Your task to perform on an android device: Is it going to rain this weekend? Image 0: 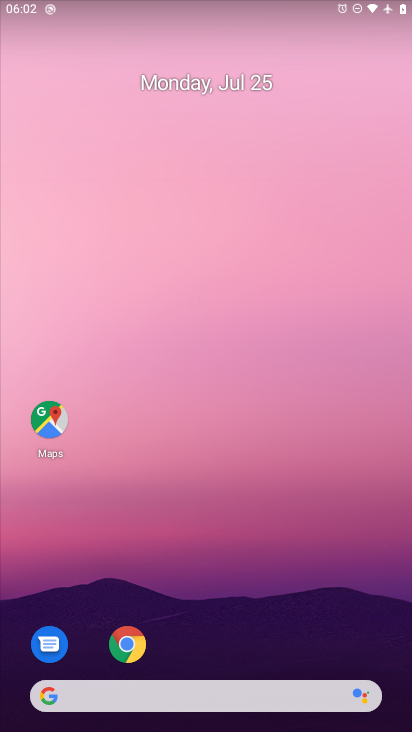
Step 0: drag from (235, 649) to (210, 114)
Your task to perform on an android device: Is it going to rain this weekend? Image 1: 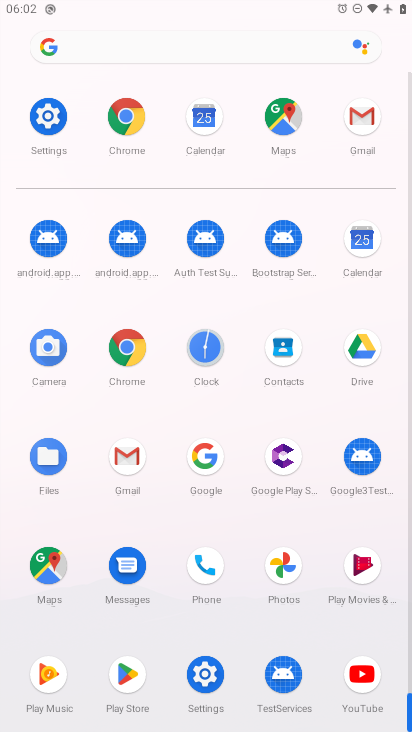
Step 1: click (209, 462)
Your task to perform on an android device: Is it going to rain this weekend? Image 2: 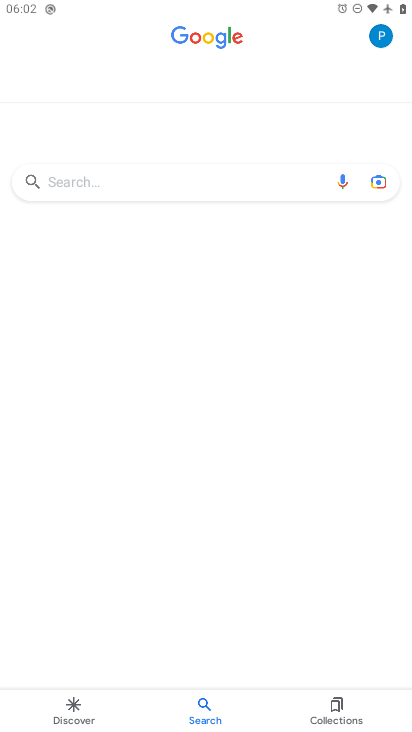
Step 2: type " rain this weekend?"
Your task to perform on an android device: Is it going to rain this weekend? Image 3: 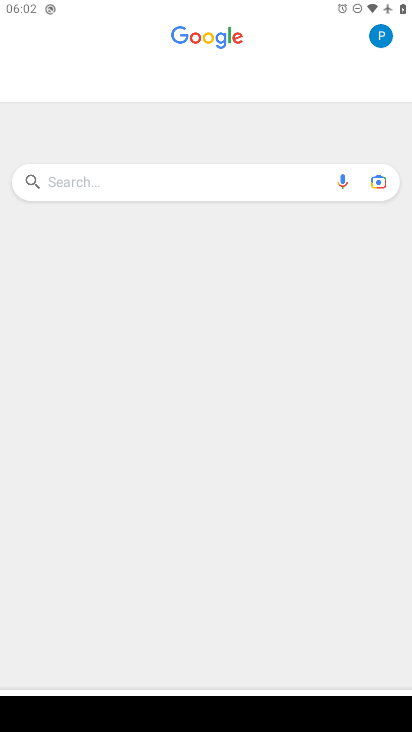
Step 3: press enter
Your task to perform on an android device: Is it going to rain this weekend? Image 4: 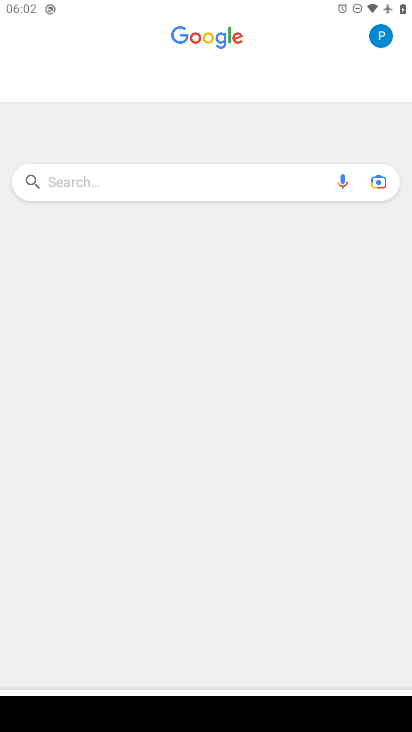
Step 4: click (193, 191)
Your task to perform on an android device: Is it going to rain this weekend? Image 5: 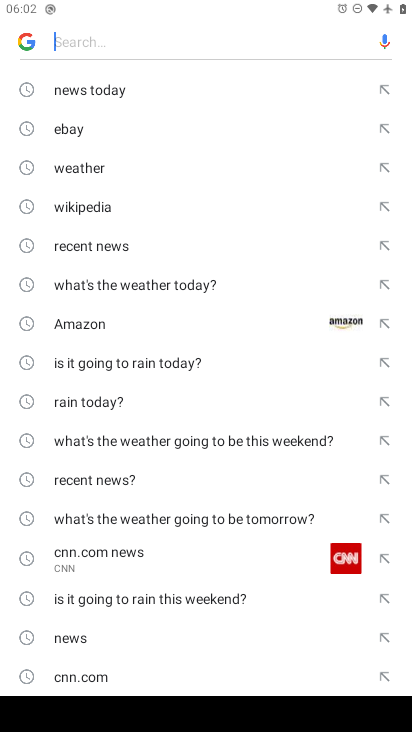
Step 5: click (187, 603)
Your task to perform on an android device: Is it going to rain this weekend? Image 6: 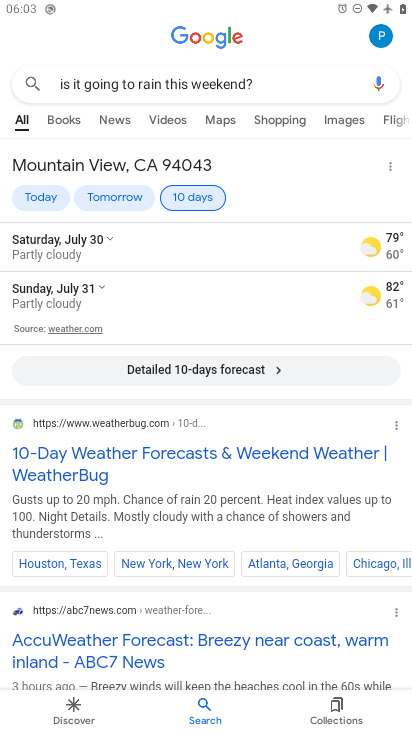
Step 6: task complete